Your task to perform on an android device: Search for Mexican restaurants on Maps Image 0: 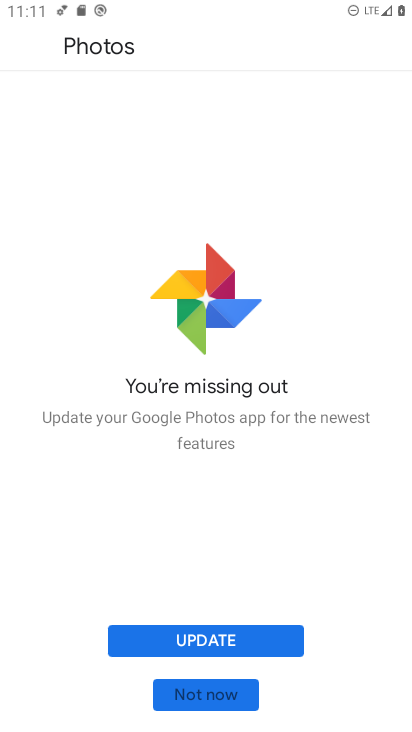
Step 0: press home button
Your task to perform on an android device: Search for Mexican restaurants on Maps Image 1: 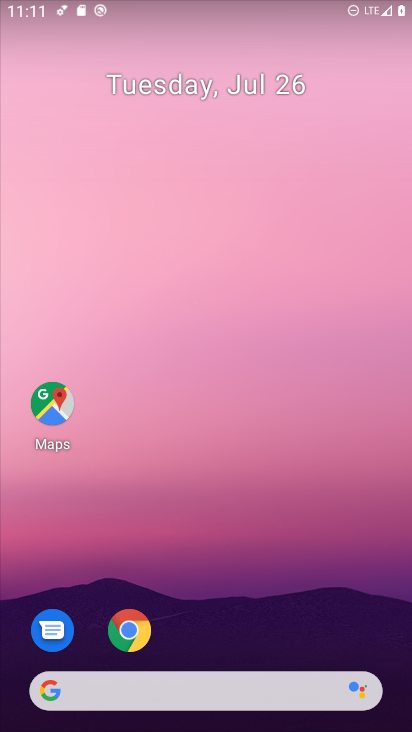
Step 1: click (56, 407)
Your task to perform on an android device: Search for Mexican restaurants on Maps Image 2: 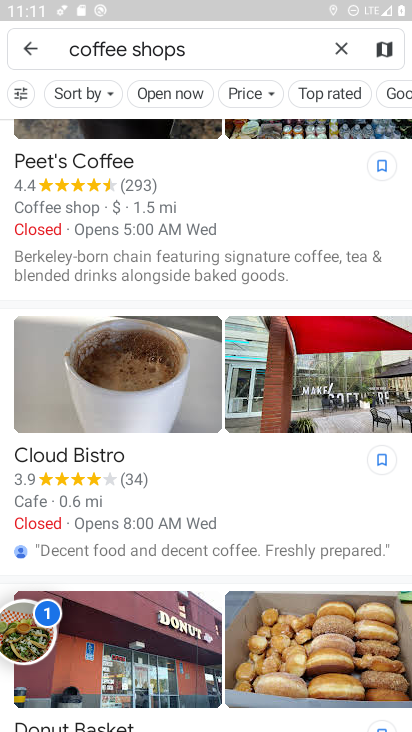
Step 2: click (338, 46)
Your task to perform on an android device: Search for Mexican restaurants on Maps Image 3: 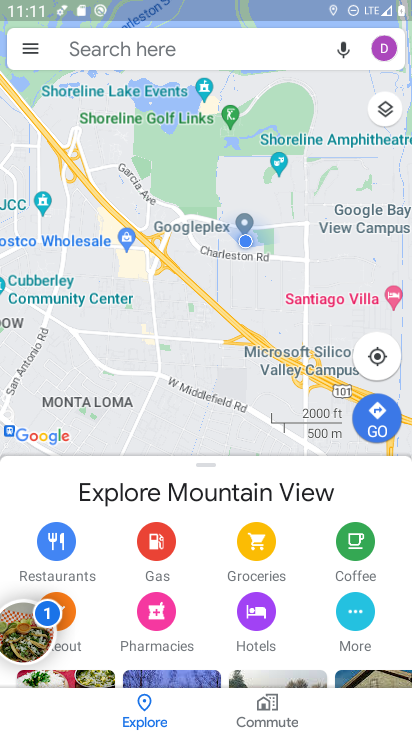
Step 3: click (130, 45)
Your task to perform on an android device: Search for Mexican restaurants on Maps Image 4: 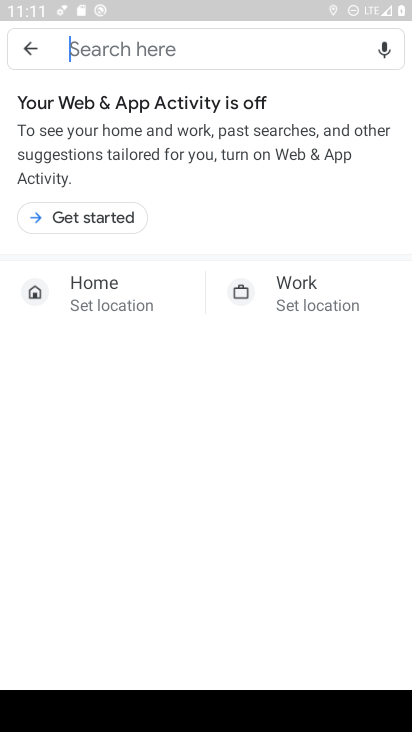
Step 4: type "mexican restaurants"
Your task to perform on an android device: Search for Mexican restaurants on Maps Image 5: 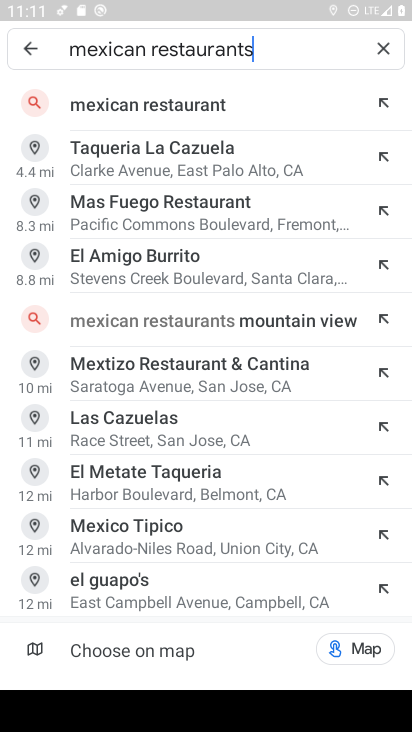
Step 5: click (146, 103)
Your task to perform on an android device: Search for Mexican restaurants on Maps Image 6: 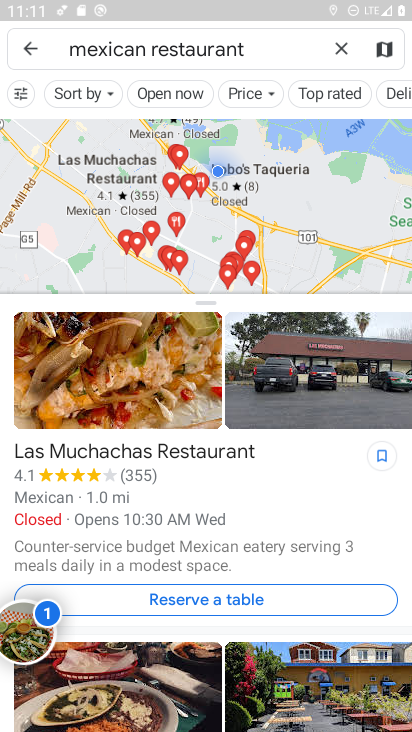
Step 6: task complete